Your task to perform on an android device: Open accessibility settings Image 0: 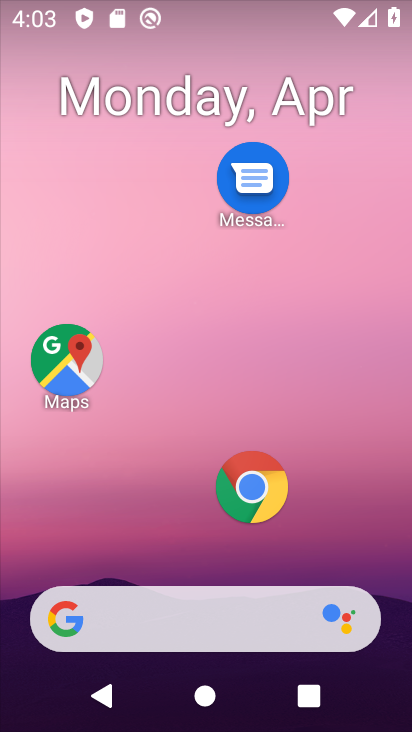
Step 0: click (305, 202)
Your task to perform on an android device: Open accessibility settings Image 1: 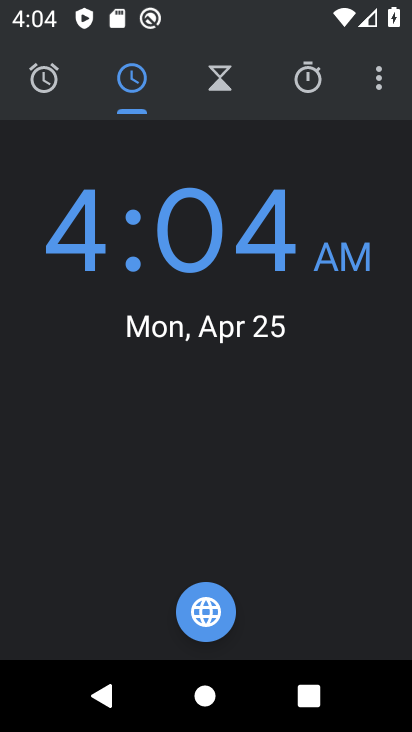
Step 1: press home button
Your task to perform on an android device: Open accessibility settings Image 2: 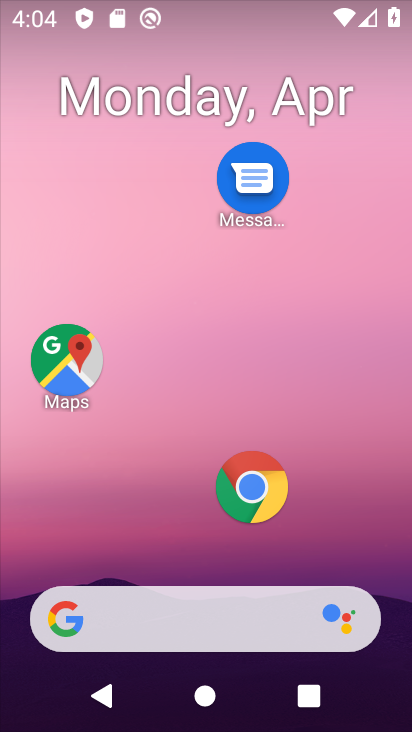
Step 2: drag from (155, 515) to (229, 43)
Your task to perform on an android device: Open accessibility settings Image 3: 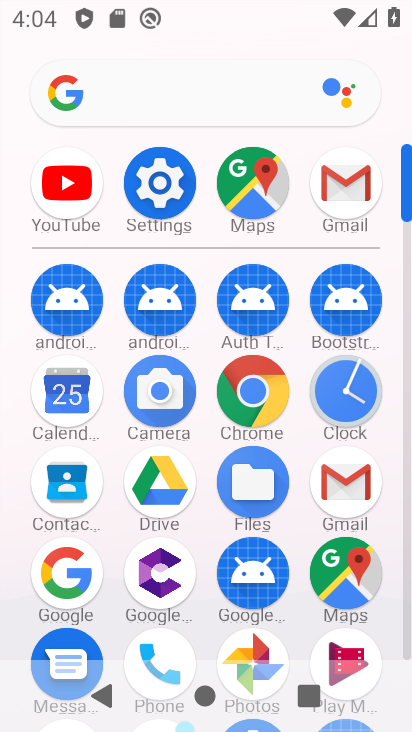
Step 3: click (155, 182)
Your task to perform on an android device: Open accessibility settings Image 4: 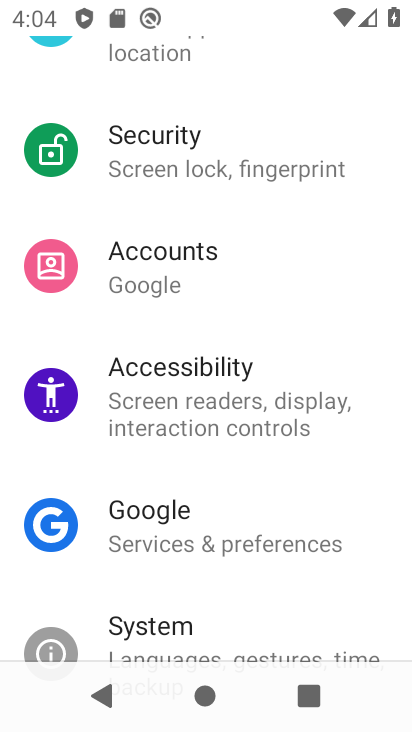
Step 4: click (167, 376)
Your task to perform on an android device: Open accessibility settings Image 5: 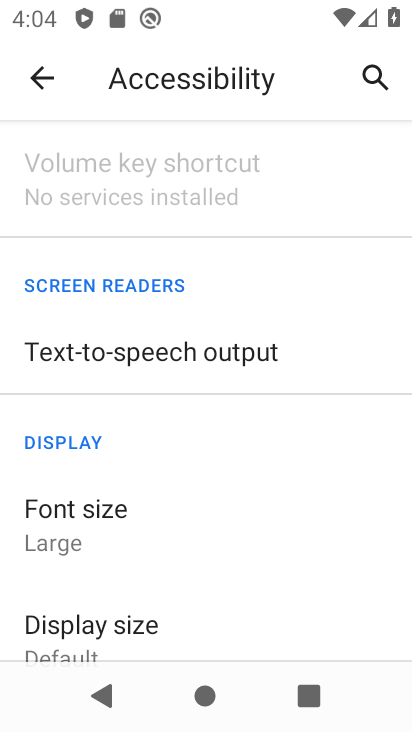
Step 5: task complete